Your task to perform on an android device: Go to privacy settings Image 0: 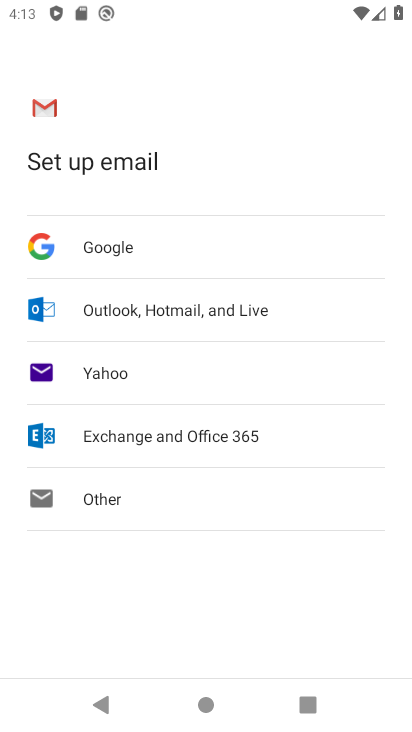
Step 0: press back button
Your task to perform on an android device: Go to privacy settings Image 1: 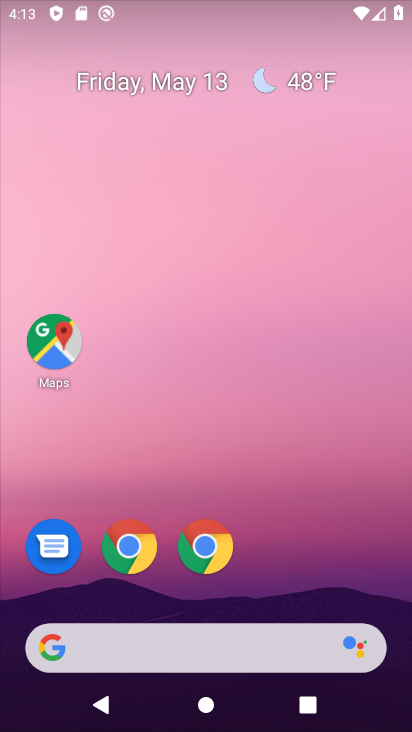
Step 1: drag from (253, 703) to (136, 133)
Your task to perform on an android device: Go to privacy settings Image 2: 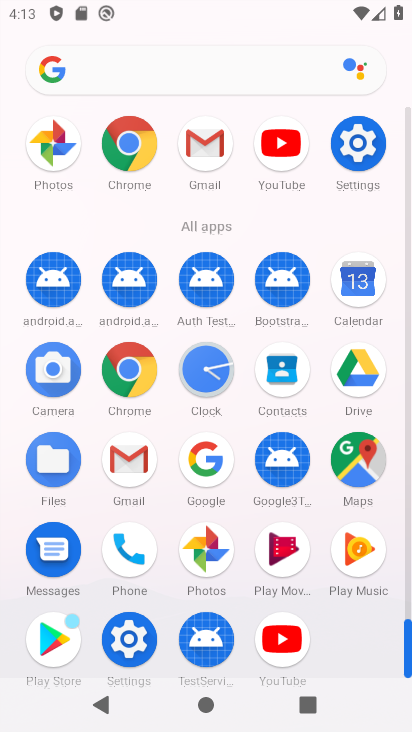
Step 2: click (355, 136)
Your task to perform on an android device: Go to privacy settings Image 3: 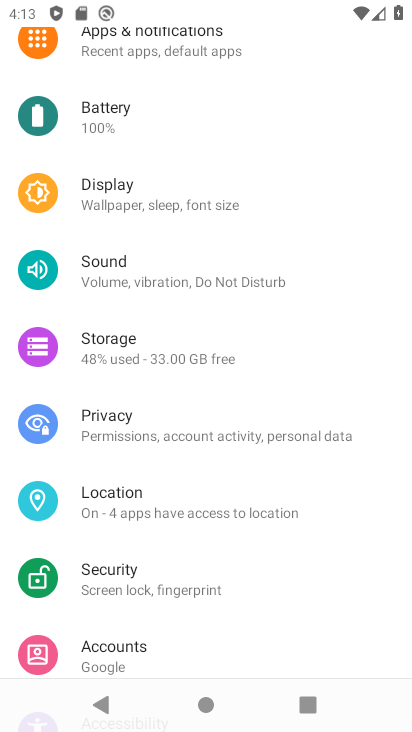
Step 3: click (113, 428)
Your task to perform on an android device: Go to privacy settings Image 4: 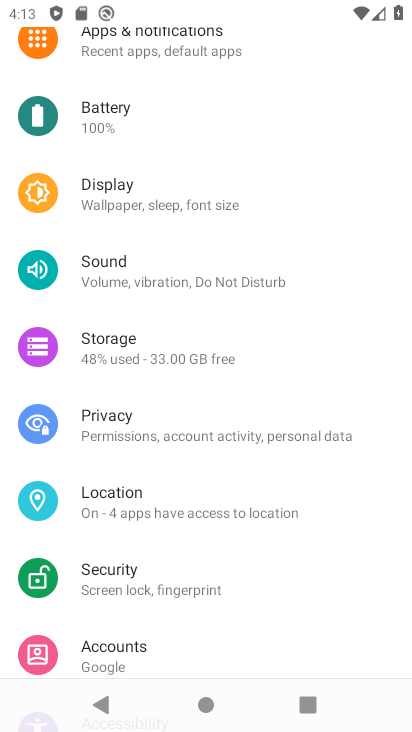
Step 4: click (115, 424)
Your task to perform on an android device: Go to privacy settings Image 5: 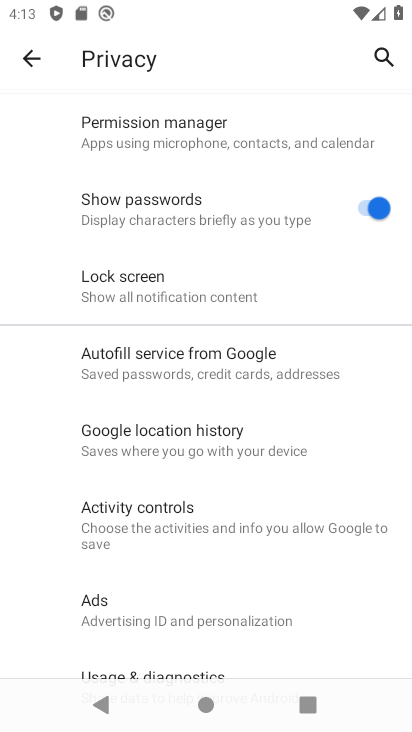
Step 5: task complete